Your task to perform on an android device: Go to Google Image 0: 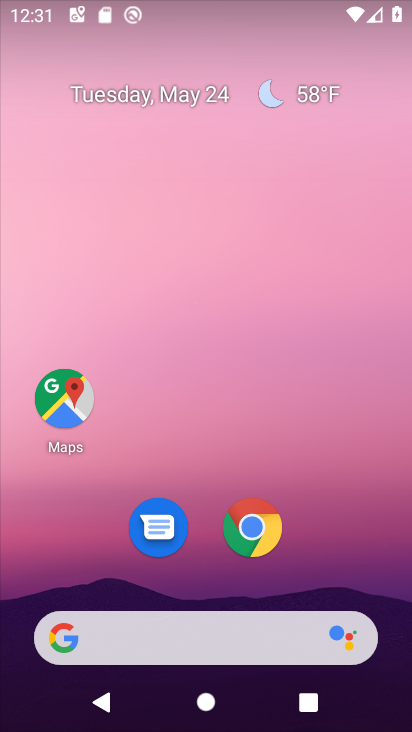
Step 0: drag from (355, 588) to (310, 172)
Your task to perform on an android device: Go to Google Image 1: 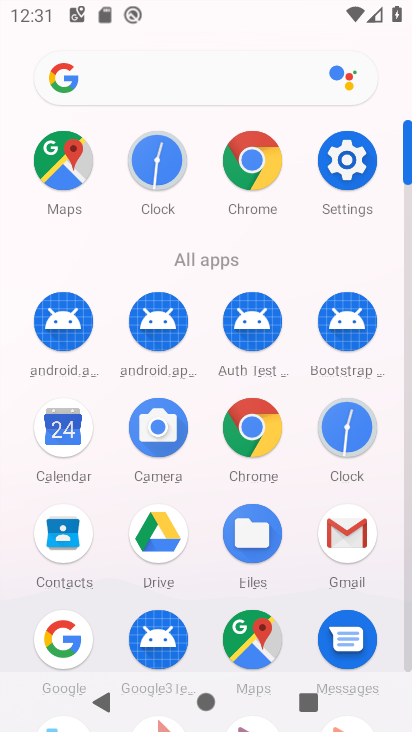
Step 1: click (65, 642)
Your task to perform on an android device: Go to Google Image 2: 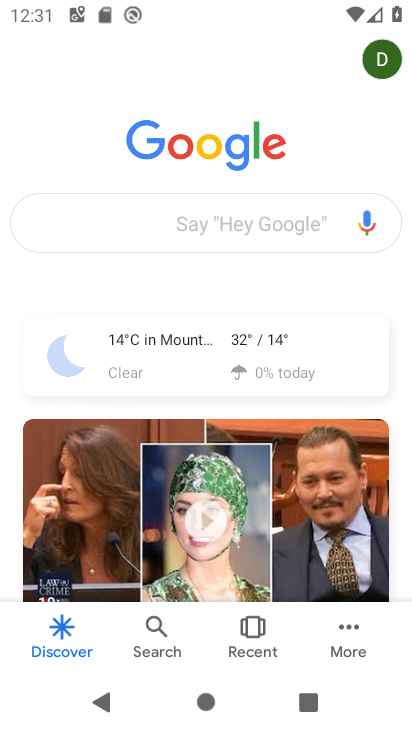
Step 2: task complete